Your task to perform on an android device: Search for seafood restaurants on Google Maps Image 0: 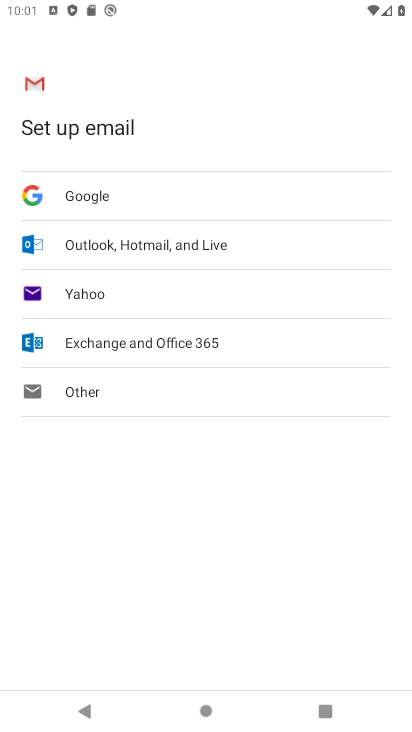
Step 0: press home button
Your task to perform on an android device: Search for seafood restaurants on Google Maps Image 1: 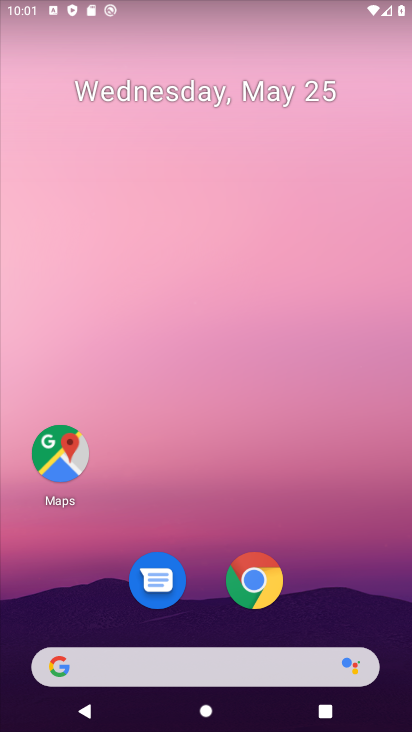
Step 1: click (50, 462)
Your task to perform on an android device: Search for seafood restaurants on Google Maps Image 2: 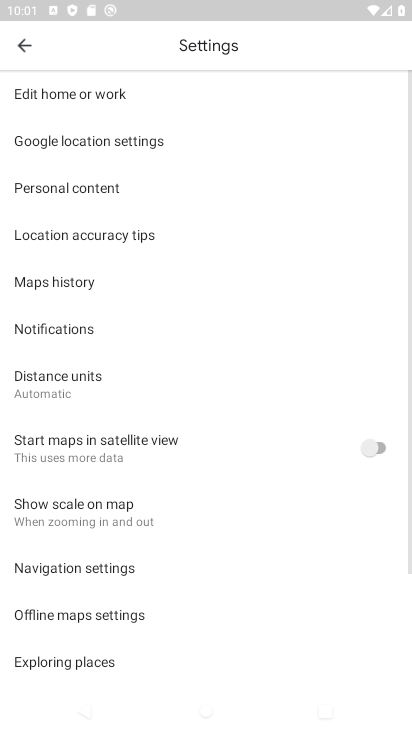
Step 2: press back button
Your task to perform on an android device: Search for seafood restaurants on Google Maps Image 3: 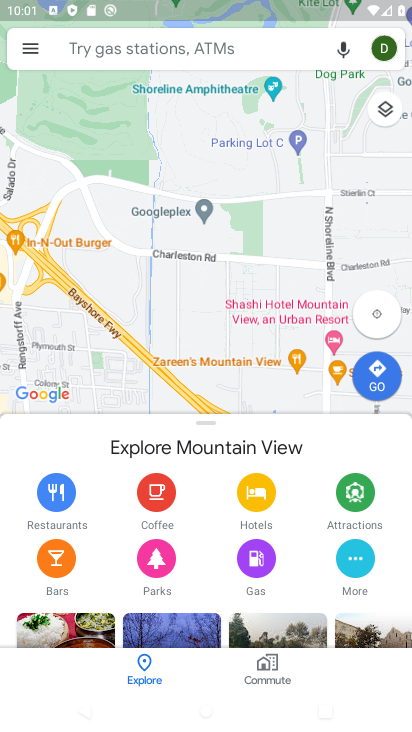
Step 3: click (125, 48)
Your task to perform on an android device: Search for seafood restaurants on Google Maps Image 4: 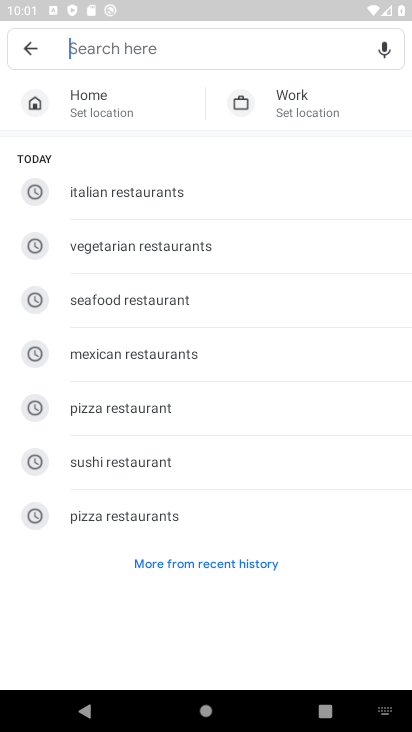
Step 4: click (106, 302)
Your task to perform on an android device: Search for seafood restaurants on Google Maps Image 5: 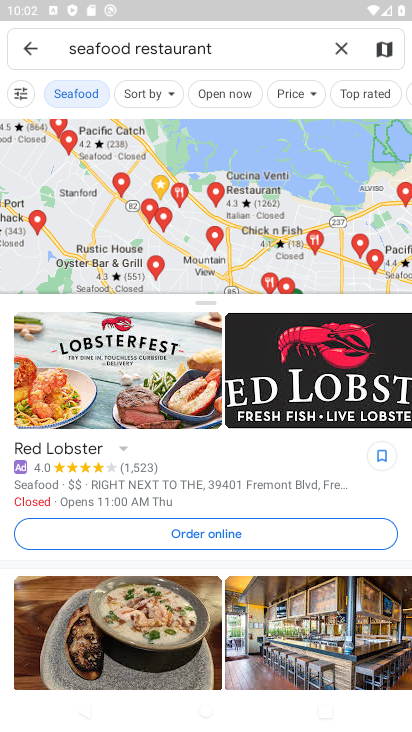
Step 5: task complete